Your task to perform on an android device: clear all cookies in the chrome app Image 0: 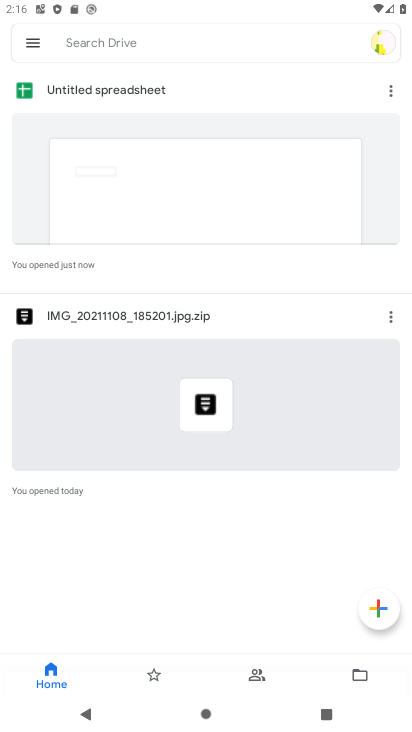
Step 0: press home button
Your task to perform on an android device: clear all cookies in the chrome app Image 1: 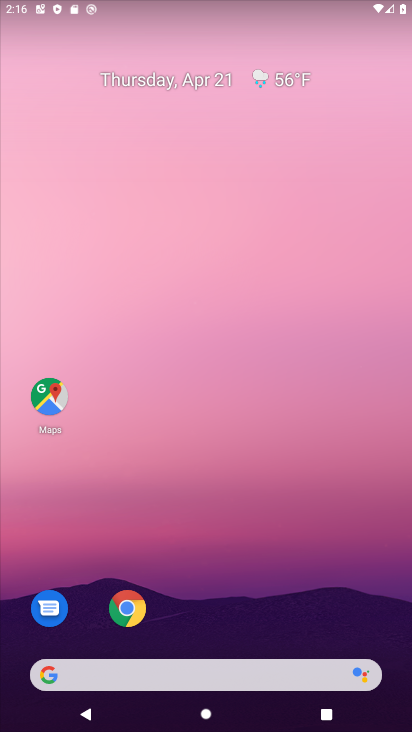
Step 1: click (124, 604)
Your task to perform on an android device: clear all cookies in the chrome app Image 2: 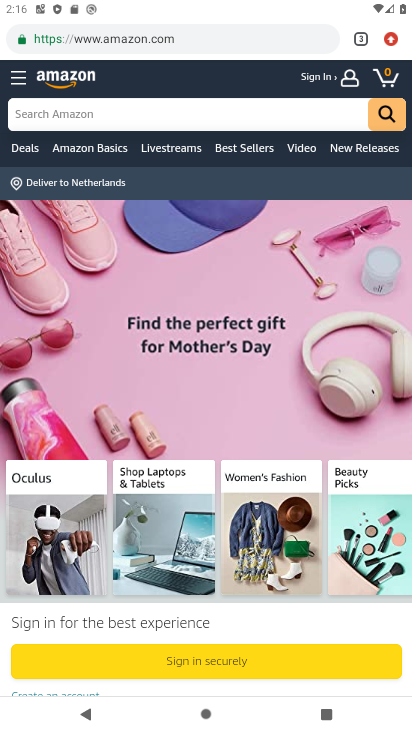
Step 2: click (388, 28)
Your task to perform on an android device: clear all cookies in the chrome app Image 3: 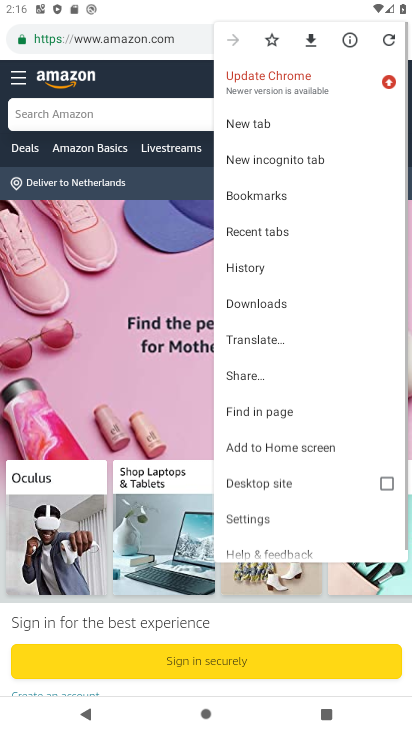
Step 3: click (391, 39)
Your task to perform on an android device: clear all cookies in the chrome app Image 4: 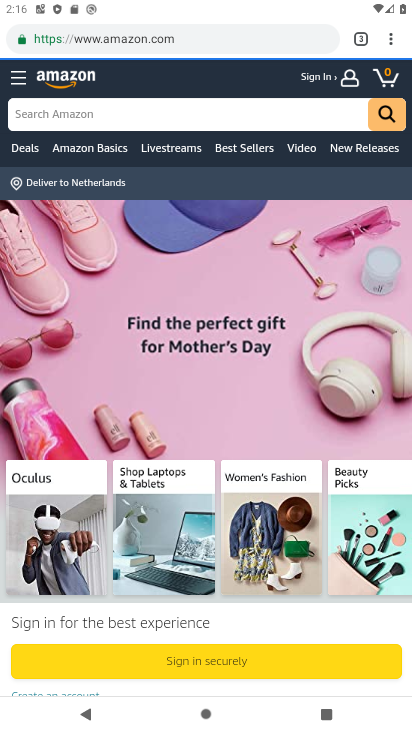
Step 4: click (390, 34)
Your task to perform on an android device: clear all cookies in the chrome app Image 5: 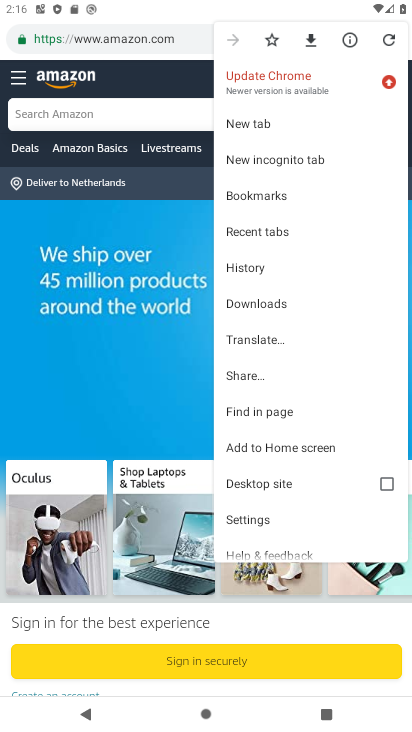
Step 5: click (258, 515)
Your task to perform on an android device: clear all cookies in the chrome app Image 6: 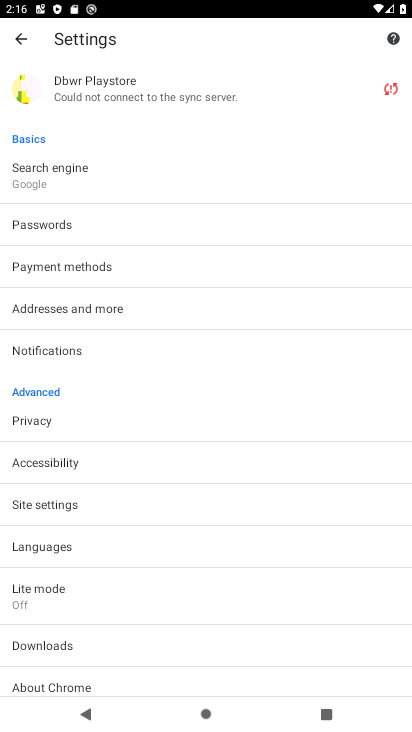
Step 6: click (17, 40)
Your task to perform on an android device: clear all cookies in the chrome app Image 7: 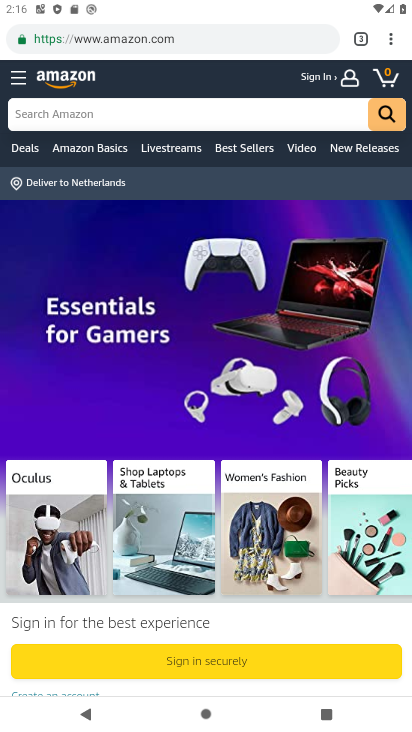
Step 7: click (397, 37)
Your task to perform on an android device: clear all cookies in the chrome app Image 8: 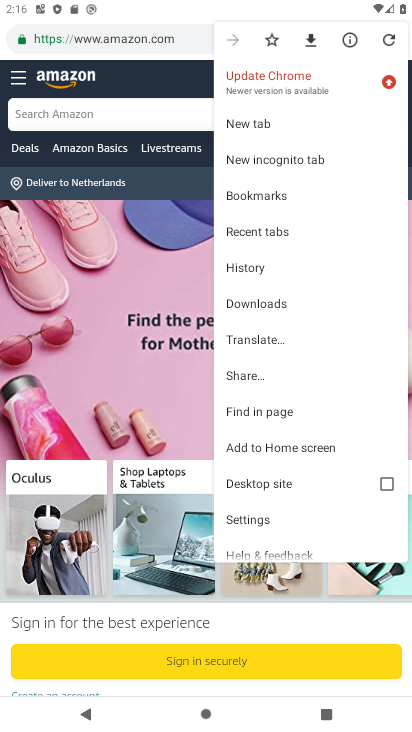
Step 8: click (246, 266)
Your task to perform on an android device: clear all cookies in the chrome app Image 9: 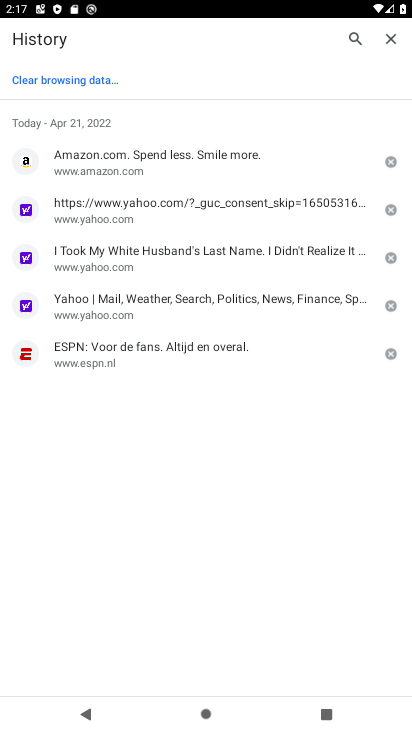
Step 9: click (65, 78)
Your task to perform on an android device: clear all cookies in the chrome app Image 10: 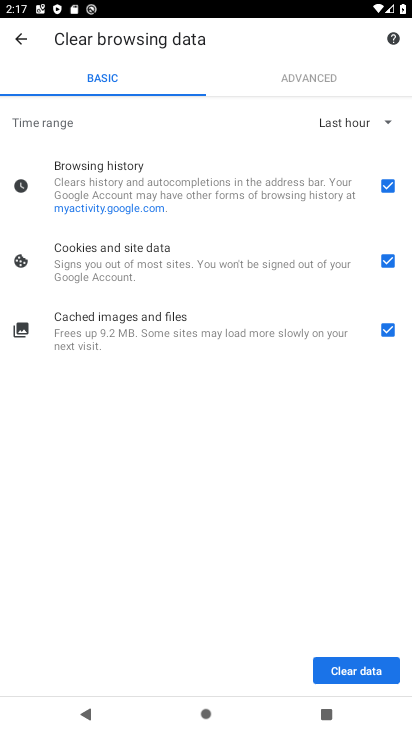
Step 10: click (350, 657)
Your task to perform on an android device: clear all cookies in the chrome app Image 11: 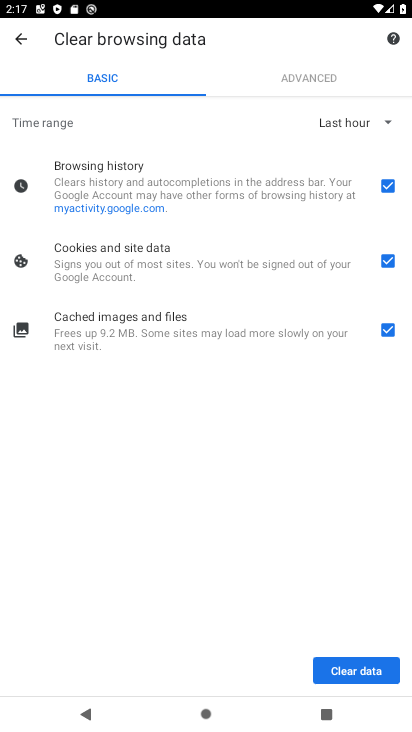
Step 11: click (350, 663)
Your task to perform on an android device: clear all cookies in the chrome app Image 12: 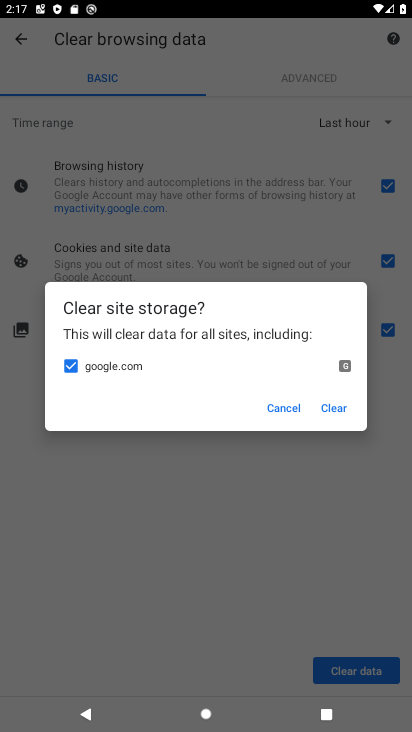
Step 12: click (334, 406)
Your task to perform on an android device: clear all cookies in the chrome app Image 13: 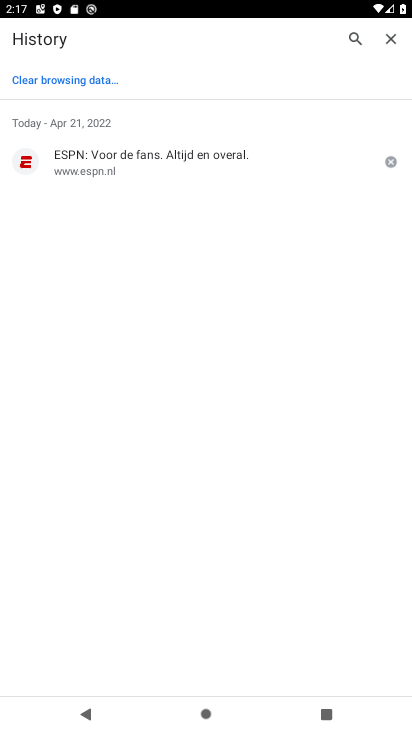
Step 13: task complete